Your task to perform on an android device: turn off translation in the chrome app Image 0: 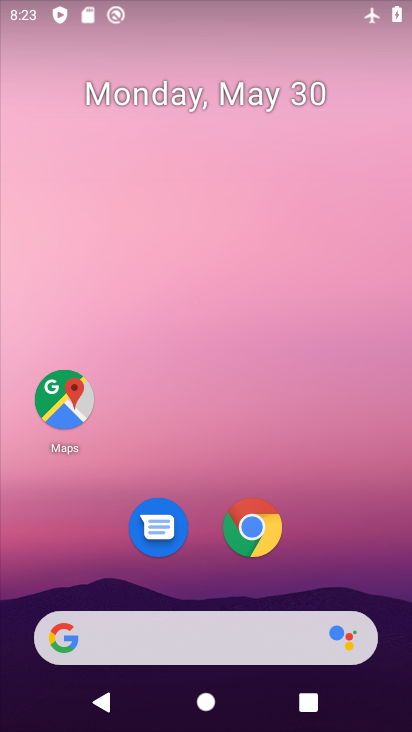
Step 0: click (256, 526)
Your task to perform on an android device: turn off translation in the chrome app Image 1: 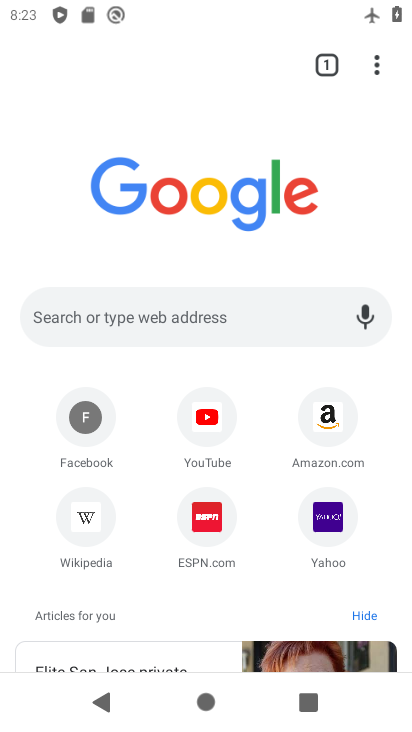
Step 1: click (374, 54)
Your task to perform on an android device: turn off translation in the chrome app Image 2: 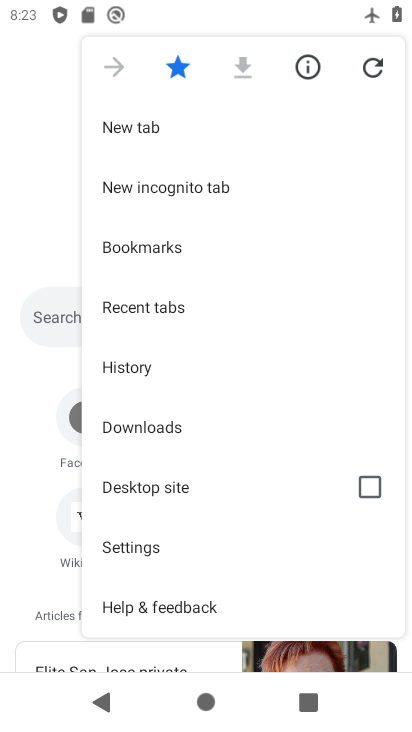
Step 2: click (144, 557)
Your task to perform on an android device: turn off translation in the chrome app Image 3: 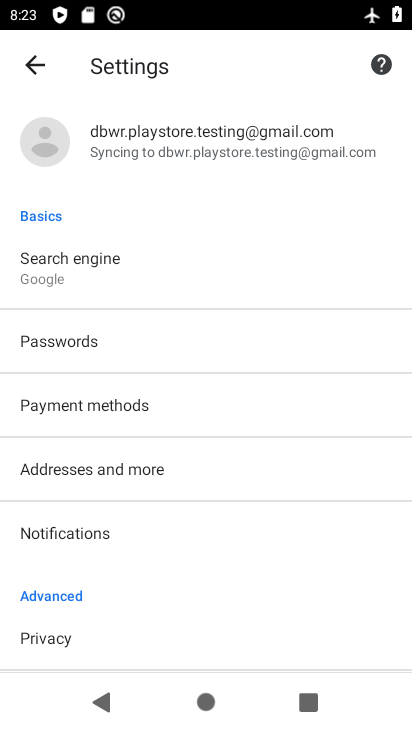
Step 3: drag from (196, 615) to (201, 75)
Your task to perform on an android device: turn off translation in the chrome app Image 4: 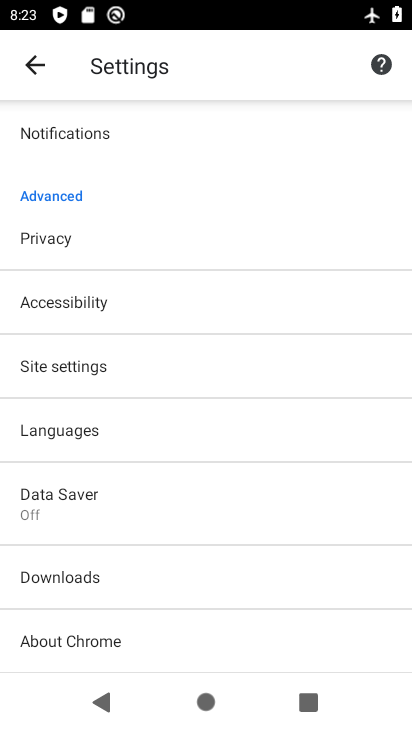
Step 4: click (70, 430)
Your task to perform on an android device: turn off translation in the chrome app Image 5: 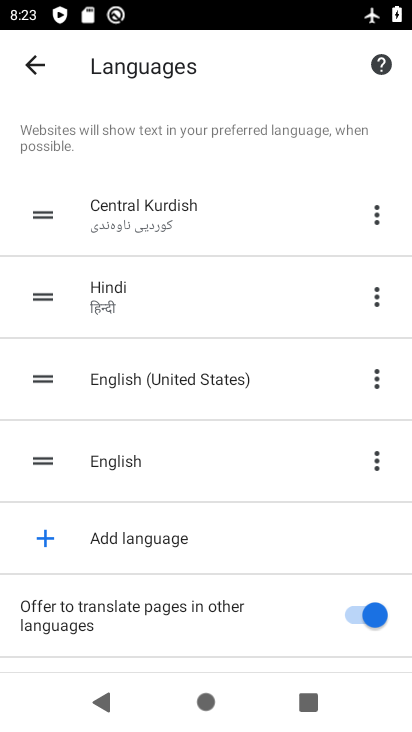
Step 5: click (359, 601)
Your task to perform on an android device: turn off translation in the chrome app Image 6: 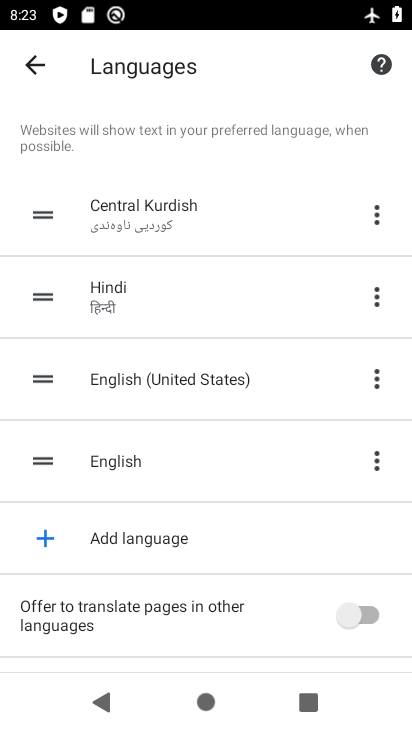
Step 6: task complete